Your task to perform on an android device: Go to Google maps Image 0: 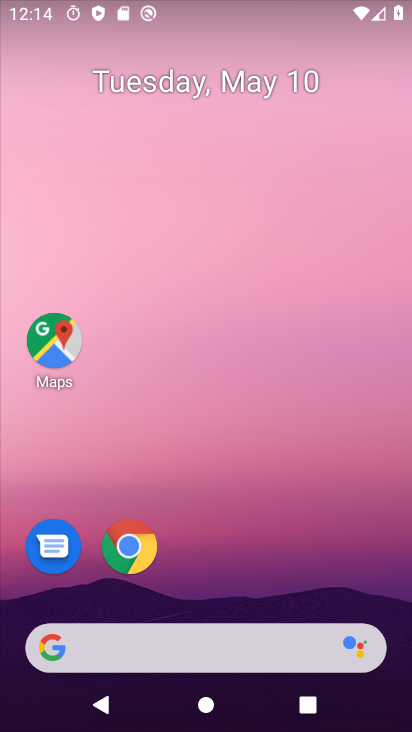
Step 0: press home button
Your task to perform on an android device: Go to Google maps Image 1: 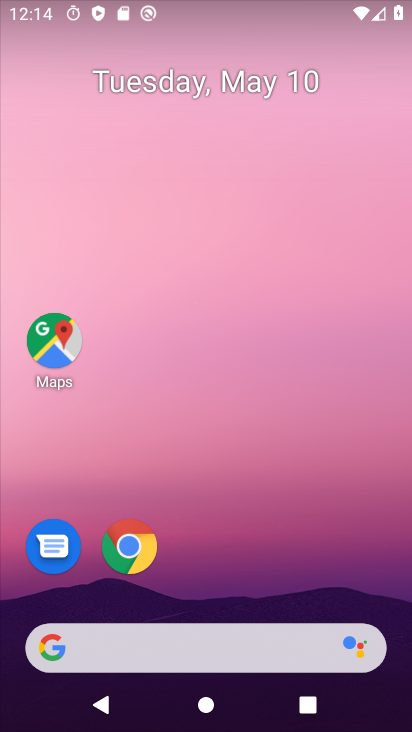
Step 1: click (68, 360)
Your task to perform on an android device: Go to Google maps Image 2: 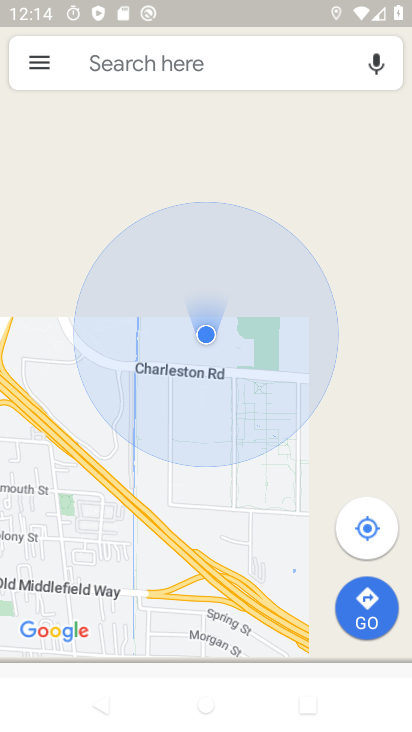
Step 2: task complete